Your task to perform on an android device: choose inbox layout in the gmail app Image 0: 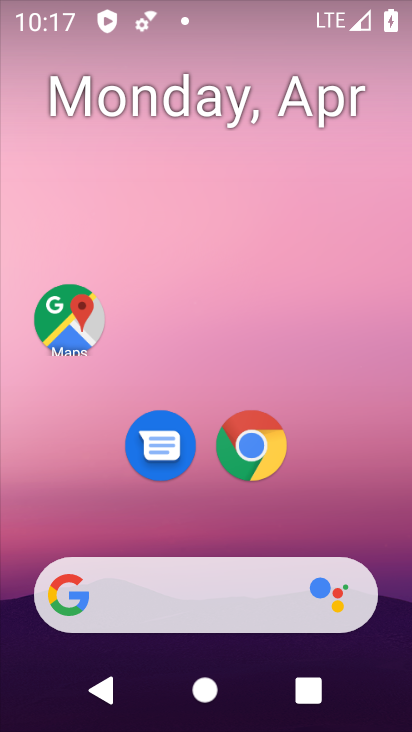
Step 0: drag from (228, 549) to (143, 225)
Your task to perform on an android device: choose inbox layout in the gmail app Image 1: 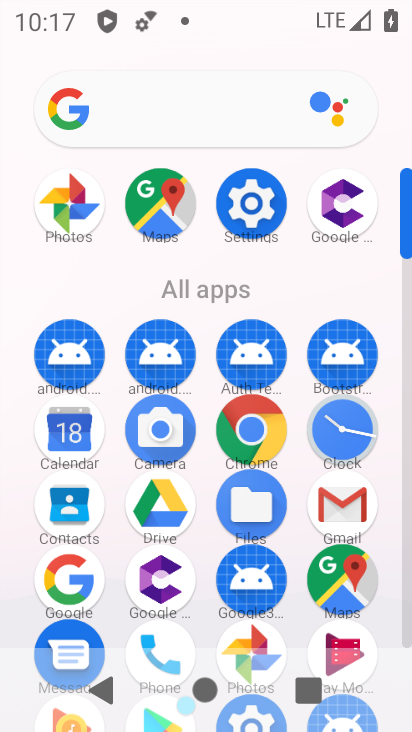
Step 1: click (330, 504)
Your task to perform on an android device: choose inbox layout in the gmail app Image 2: 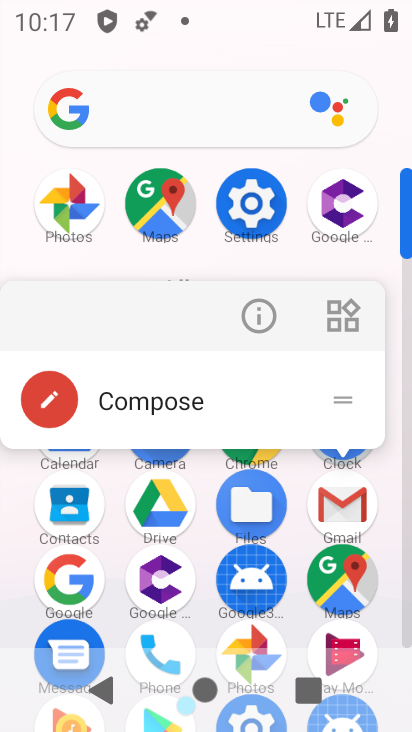
Step 2: click (331, 503)
Your task to perform on an android device: choose inbox layout in the gmail app Image 3: 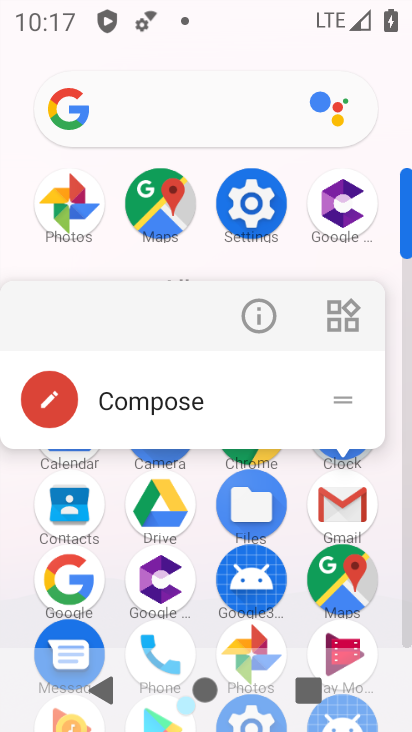
Step 3: click (323, 501)
Your task to perform on an android device: choose inbox layout in the gmail app Image 4: 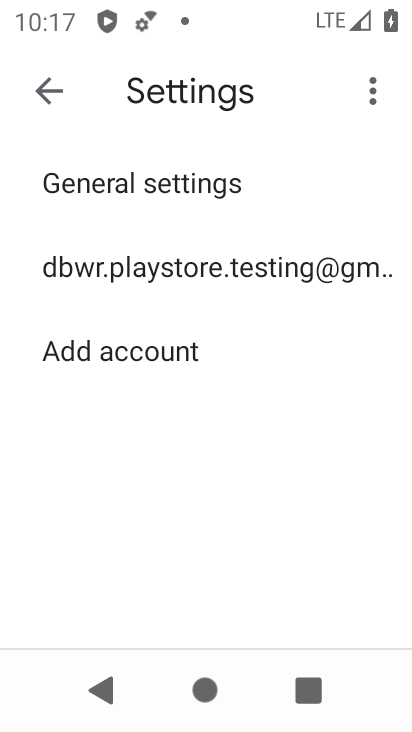
Step 4: click (105, 275)
Your task to perform on an android device: choose inbox layout in the gmail app Image 5: 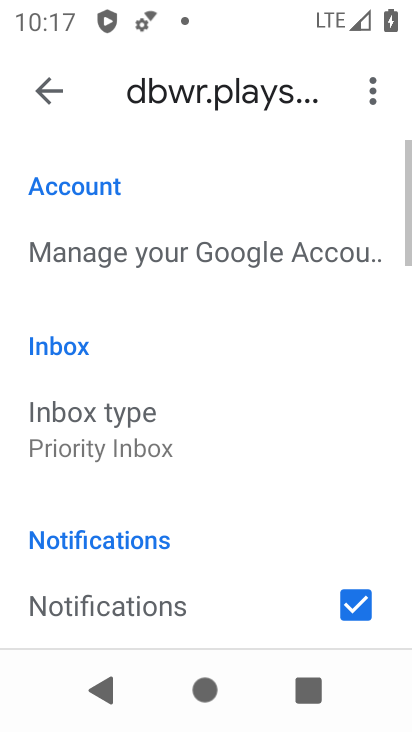
Step 5: click (136, 429)
Your task to perform on an android device: choose inbox layout in the gmail app Image 6: 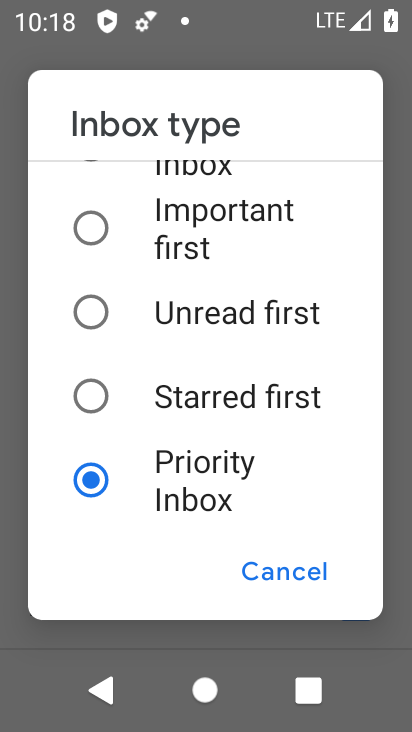
Step 6: click (308, 567)
Your task to perform on an android device: choose inbox layout in the gmail app Image 7: 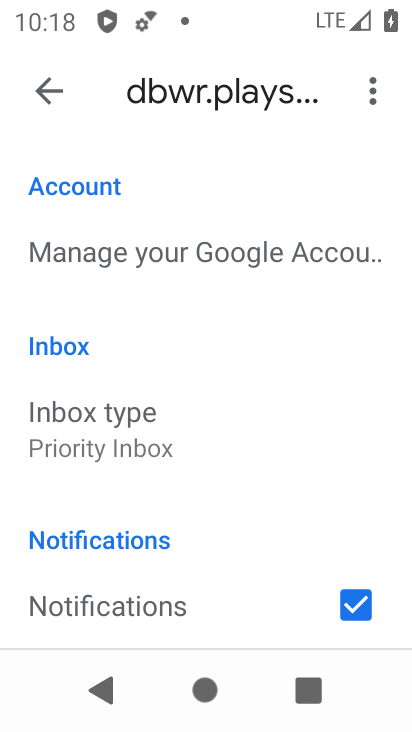
Step 7: task complete